Your task to perform on an android device: Show me recent news Image 0: 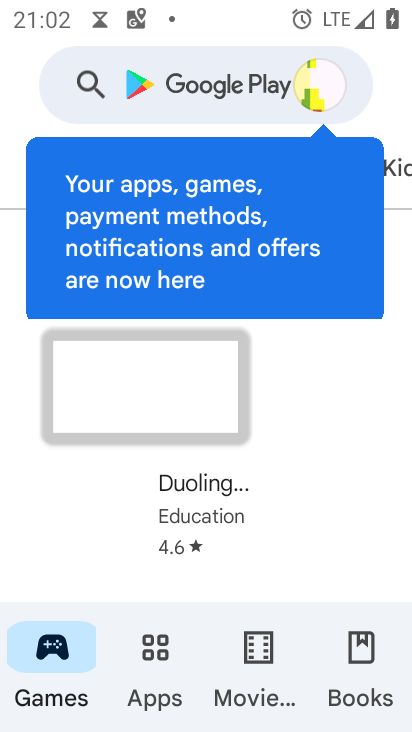
Step 0: press home button
Your task to perform on an android device: Show me recent news Image 1: 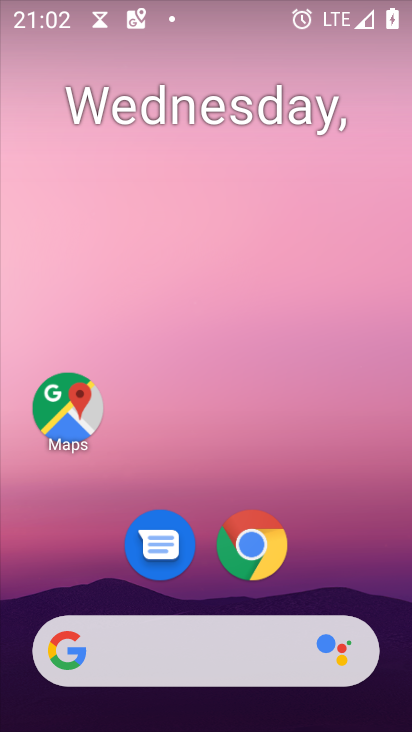
Step 1: click (80, 651)
Your task to perform on an android device: Show me recent news Image 2: 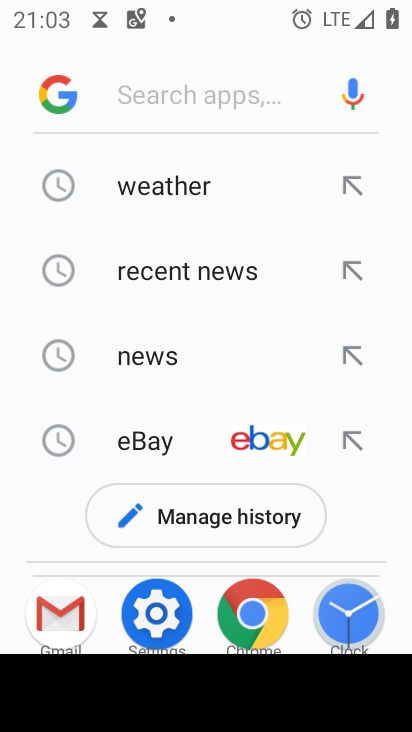
Step 2: click (194, 270)
Your task to perform on an android device: Show me recent news Image 3: 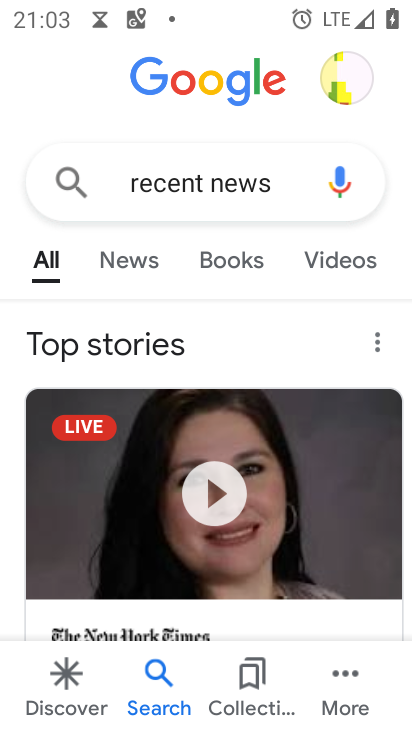
Step 3: click (127, 263)
Your task to perform on an android device: Show me recent news Image 4: 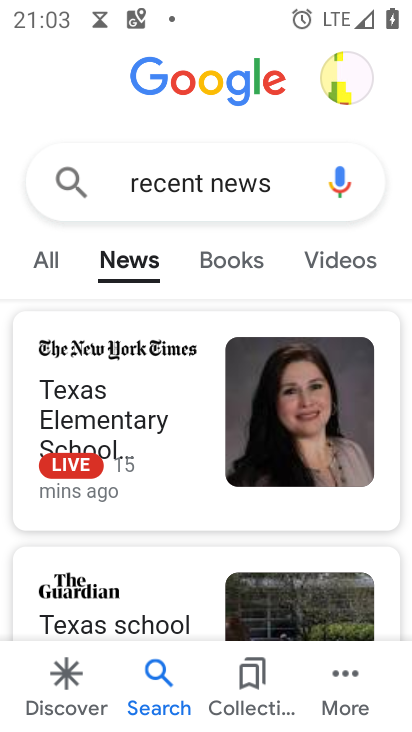
Step 4: task complete